Your task to perform on an android device: Open Google Maps and go to "Timeline" Image 0: 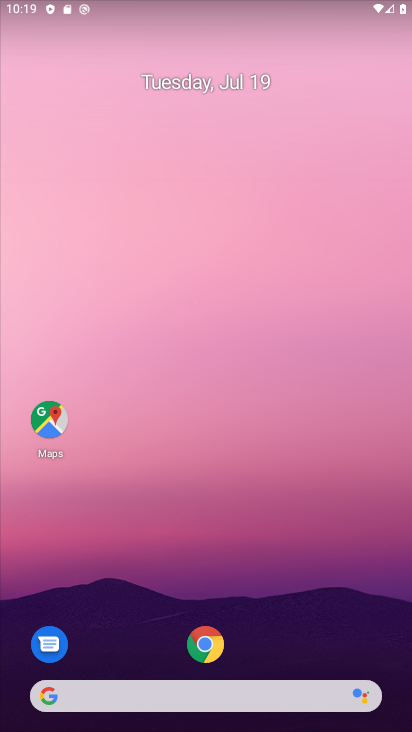
Step 0: click (43, 425)
Your task to perform on an android device: Open Google Maps and go to "Timeline" Image 1: 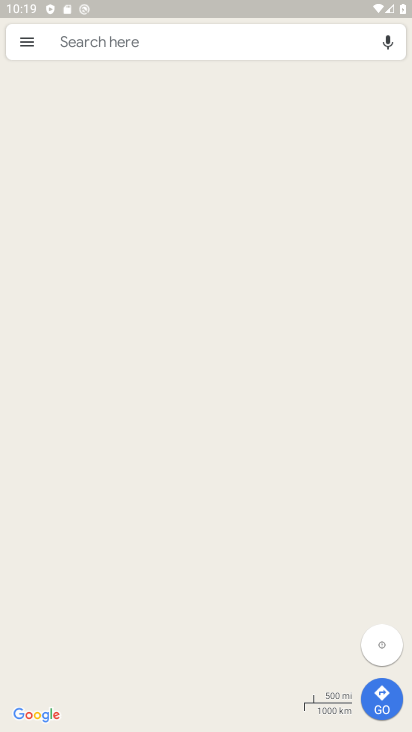
Step 1: click (23, 46)
Your task to perform on an android device: Open Google Maps and go to "Timeline" Image 2: 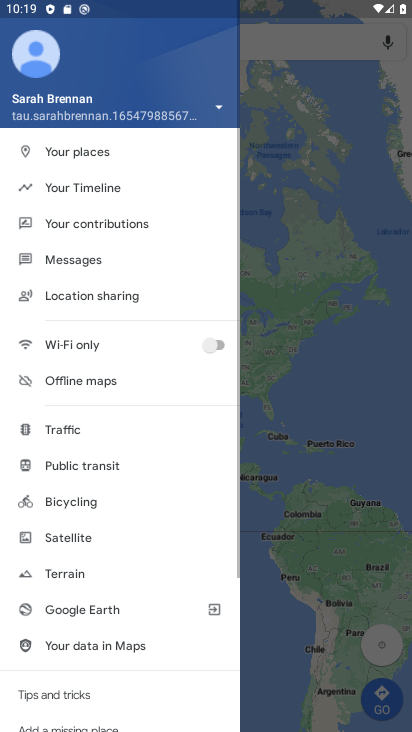
Step 2: click (86, 189)
Your task to perform on an android device: Open Google Maps and go to "Timeline" Image 3: 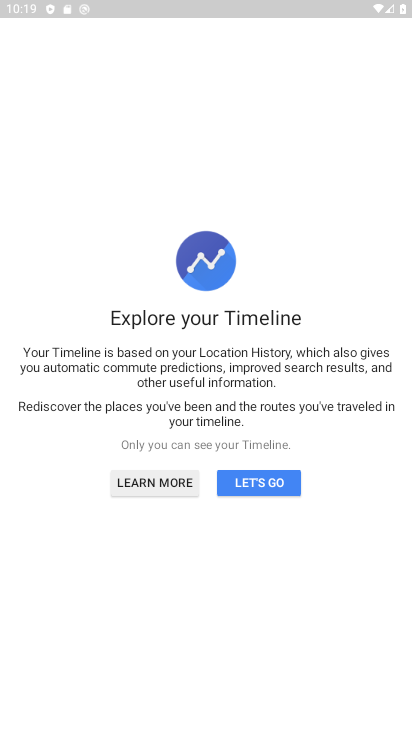
Step 3: click (250, 485)
Your task to perform on an android device: Open Google Maps and go to "Timeline" Image 4: 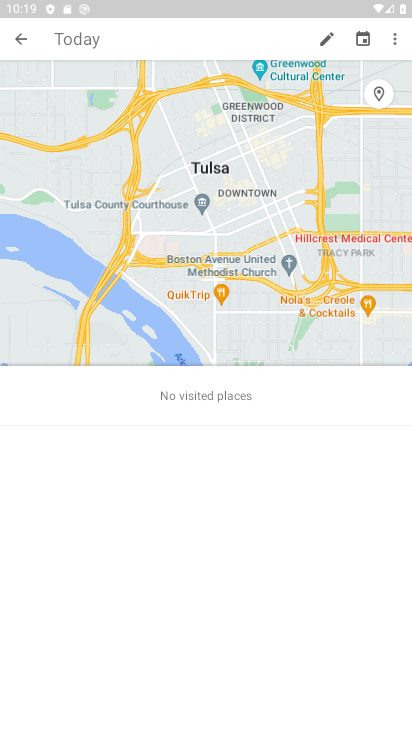
Step 4: task complete